Your task to perform on an android device: Open privacy settings Image 0: 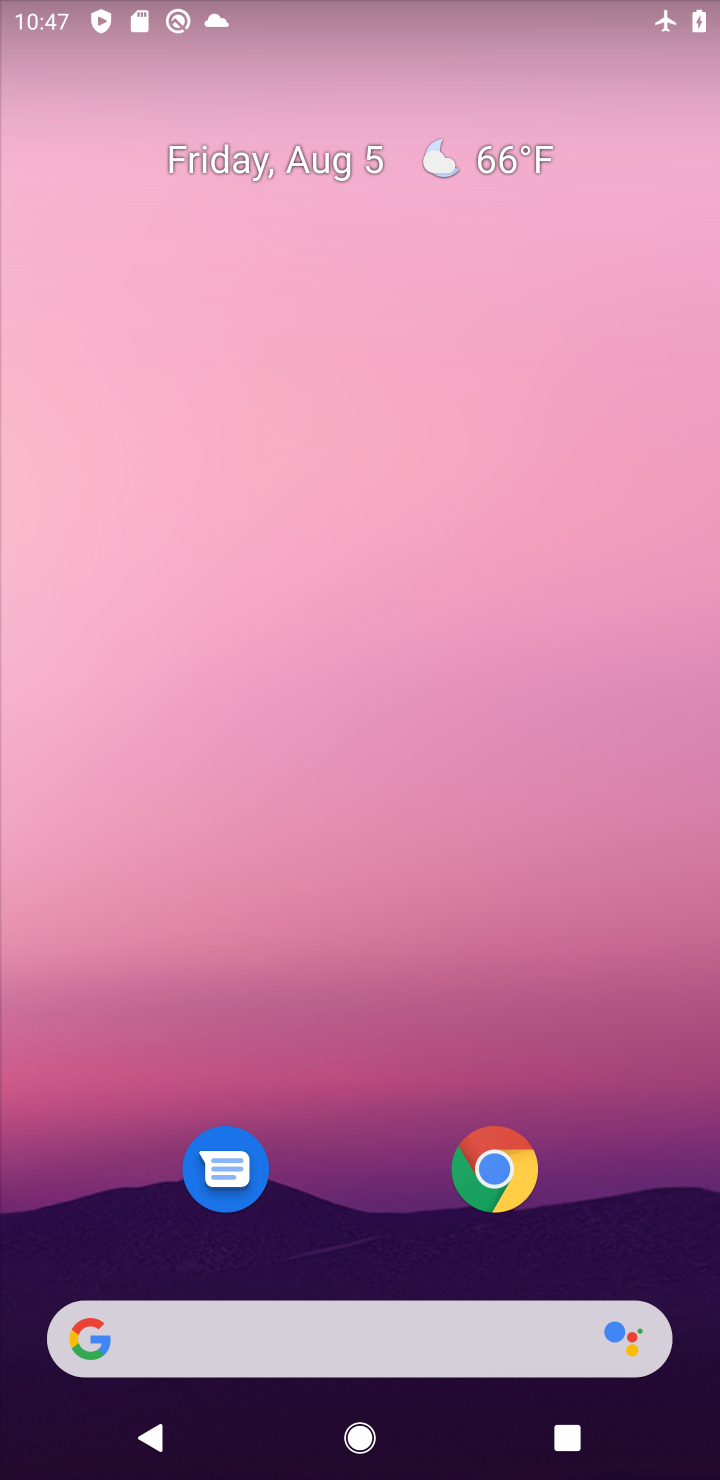
Step 0: drag from (576, 458) to (562, 357)
Your task to perform on an android device: Open privacy settings Image 1: 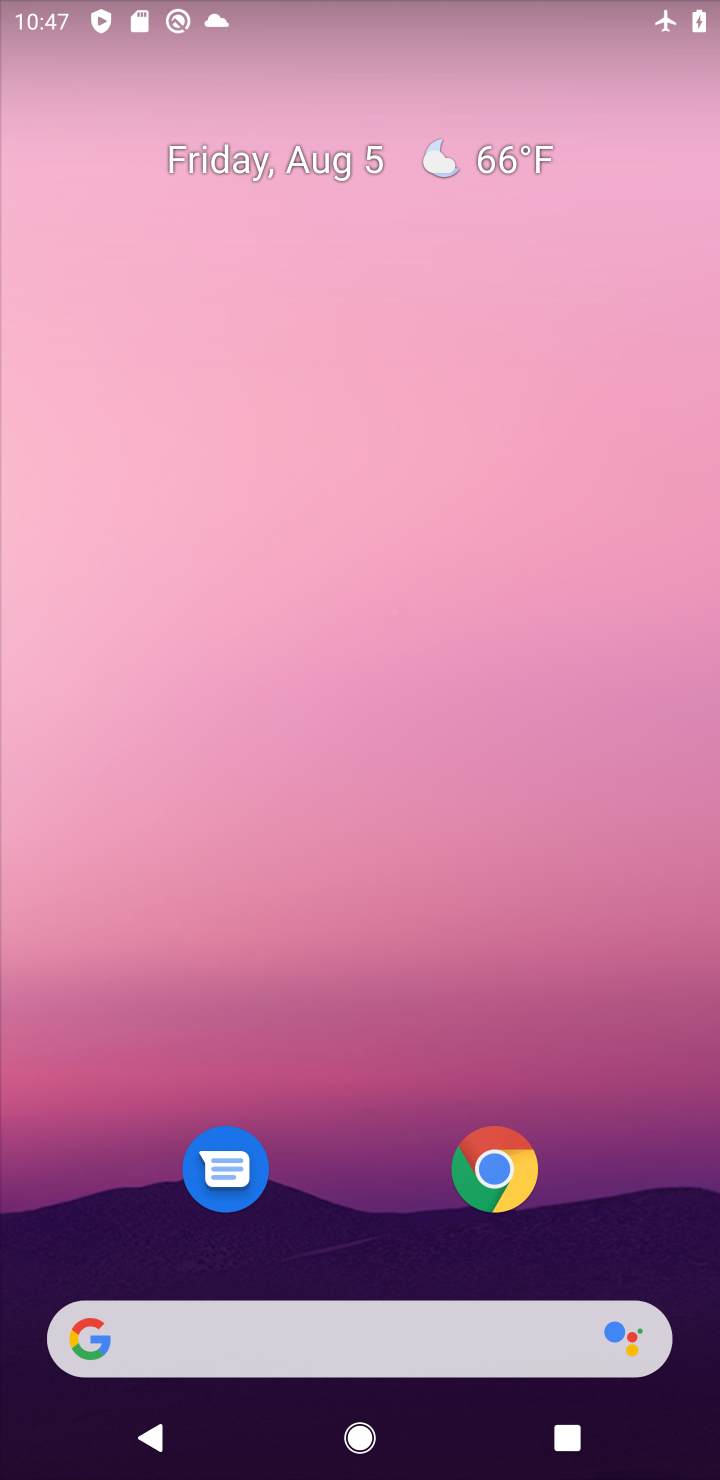
Step 1: drag from (653, 1129) to (523, 335)
Your task to perform on an android device: Open privacy settings Image 2: 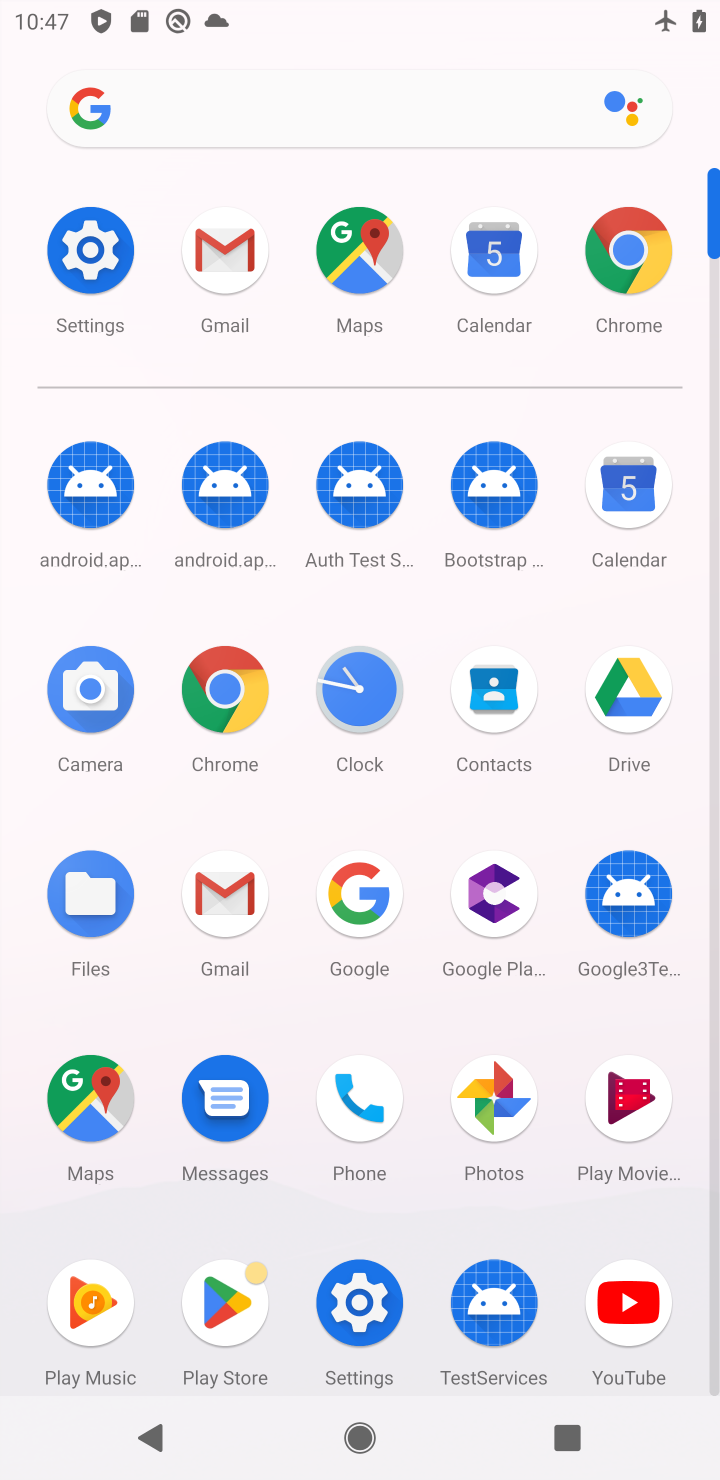
Step 2: click (353, 1304)
Your task to perform on an android device: Open privacy settings Image 3: 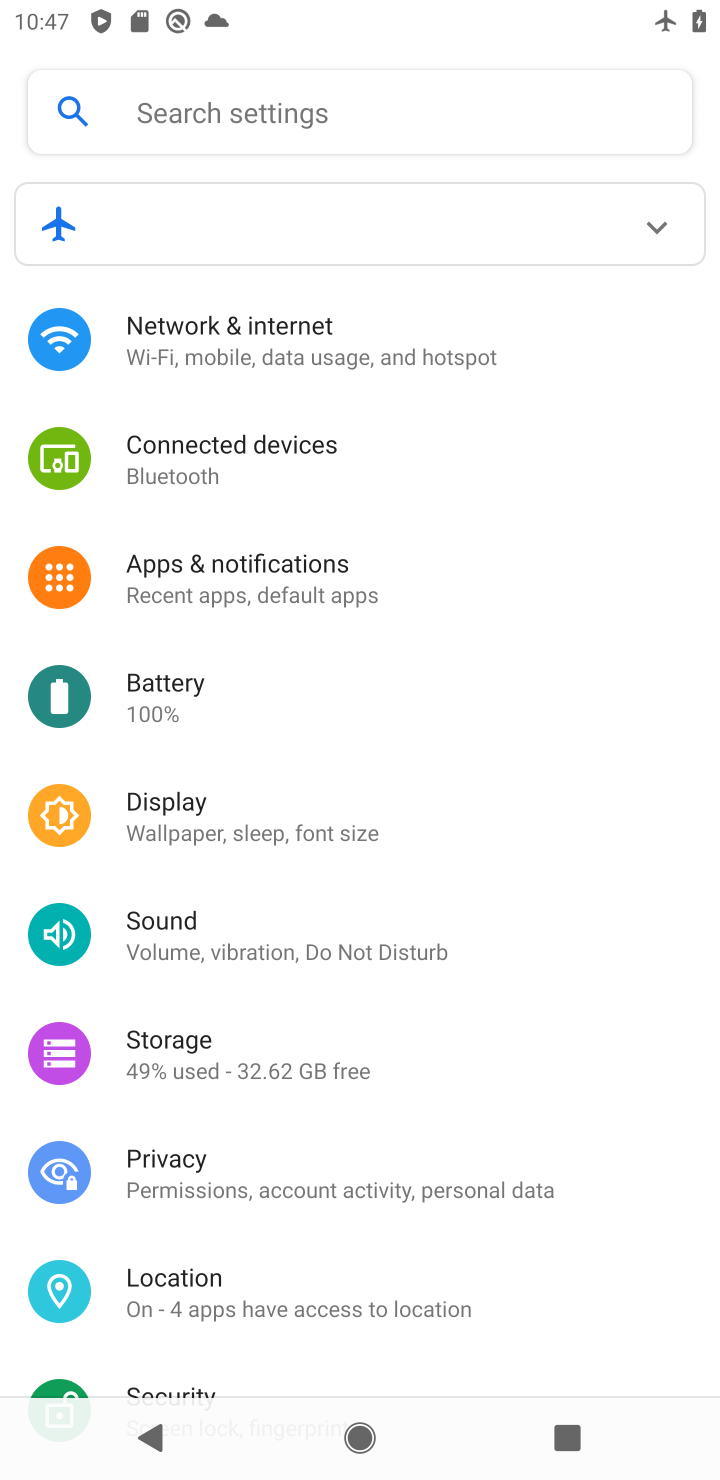
Step 3: click (201, 1164)
Your task to perform on an android device: Open privacy settings Image 4: 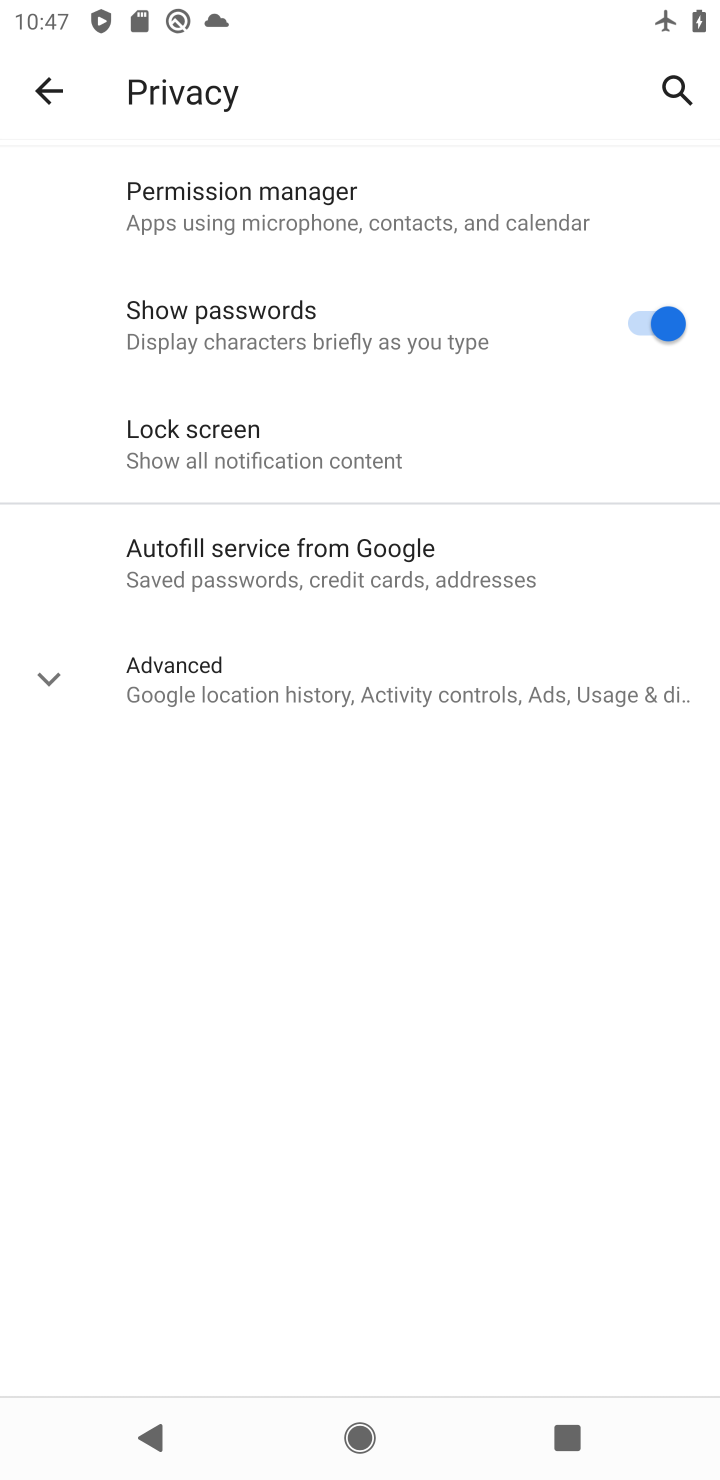
Step 4: click (48, 689)
Your task to perform on an android device: Open privacy settings Image 5: 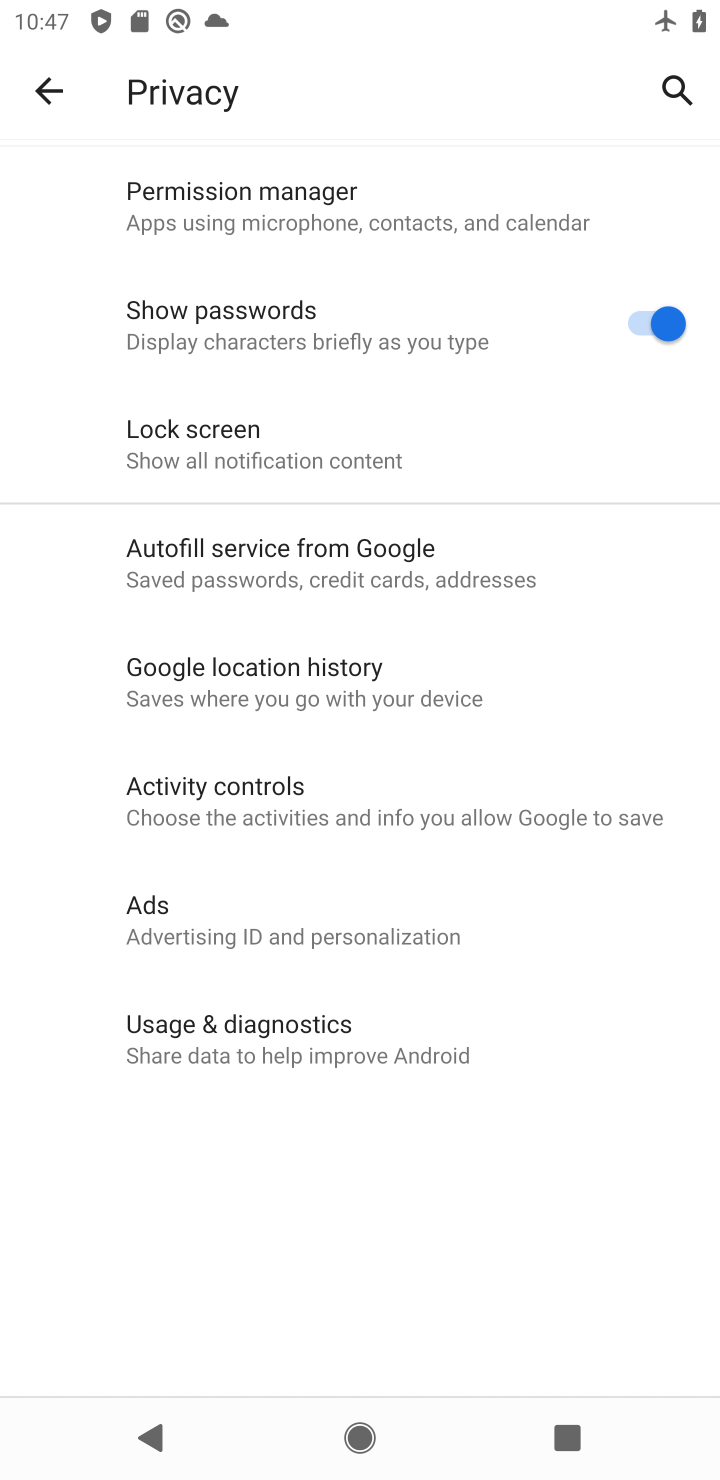
Step 5: task complete